Your task to perform on an android device: Go to Google maps Image 0: 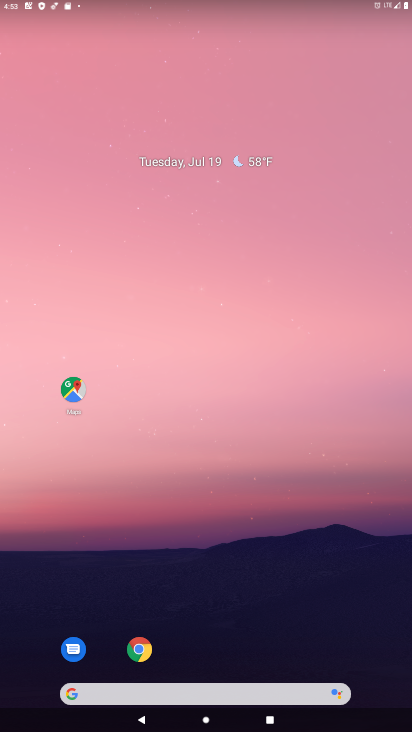
Step 0: drag from (196, 657) to (173, 160)
Your task to perform on an android device: Go to Google maps Image 1: 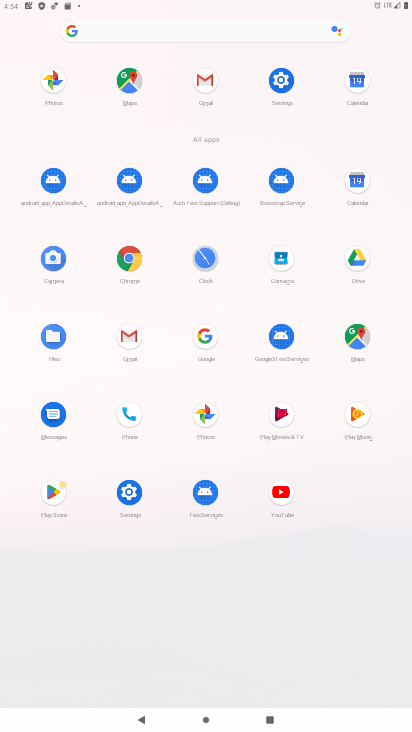
Step 1: click (132, 87)
Your task to perform on an android device: Go to Google maps Image 2: 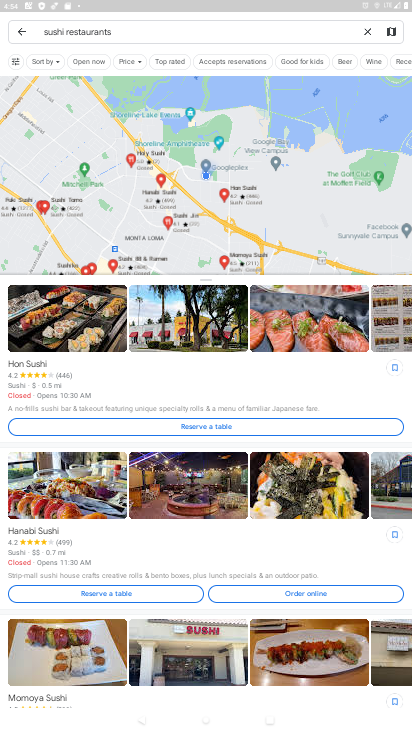
Step 2: task complete